Your task to perform on an android device: turn on airplane mode Image 0: 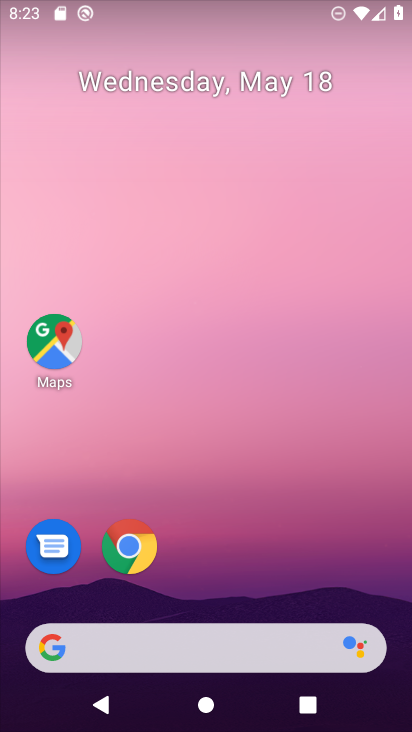
Step 0: drag from (227, 682) to (307, 327)
Your task to perform on an android device: turn on airplane mode Image 1: 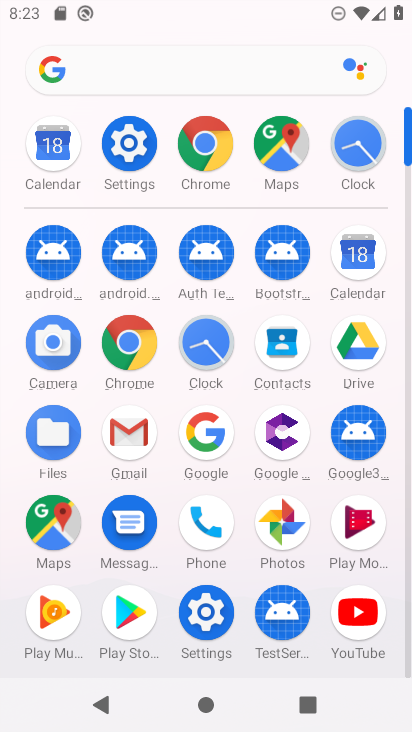
Step 1: click (129, 155)
Your task to perform on an android device: turn on airplane mode Image 2: 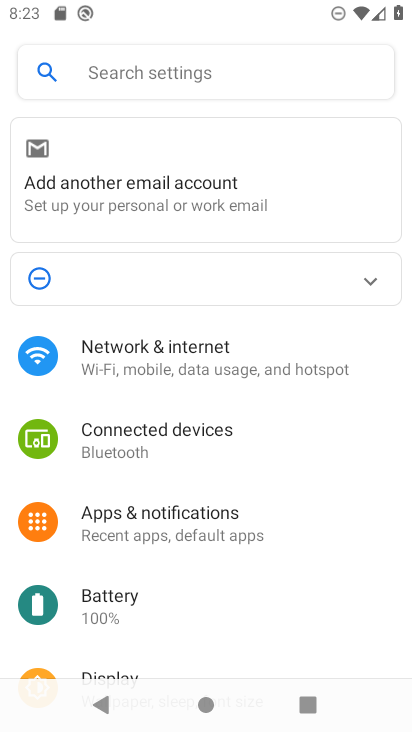
Step 2: click (194, 351)
Your task to perform on an android device: turn on airplane mode Image 3: 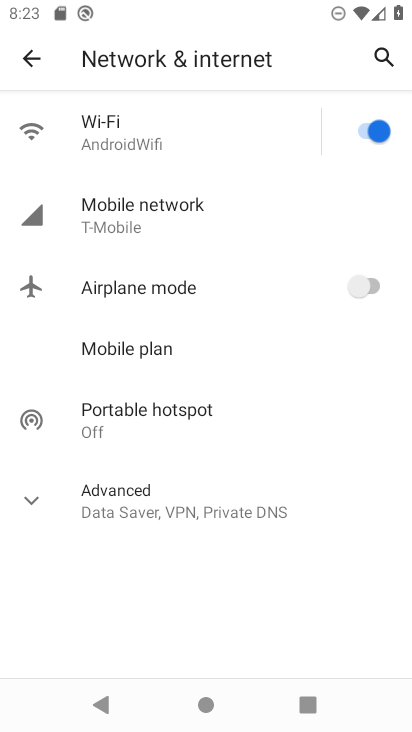
Step 3: click (232, 285)
Your task to perform on an android device: turn on airplane mode Image 4: 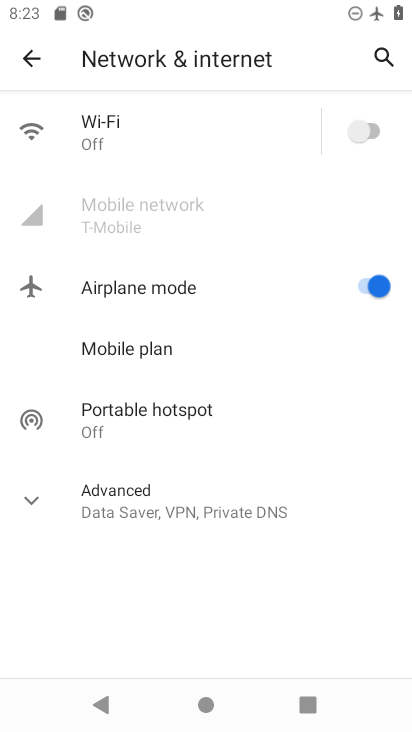
Step 4: task complete